Your task to perform on an android device: toggle javascript in the chrome app Image 0: 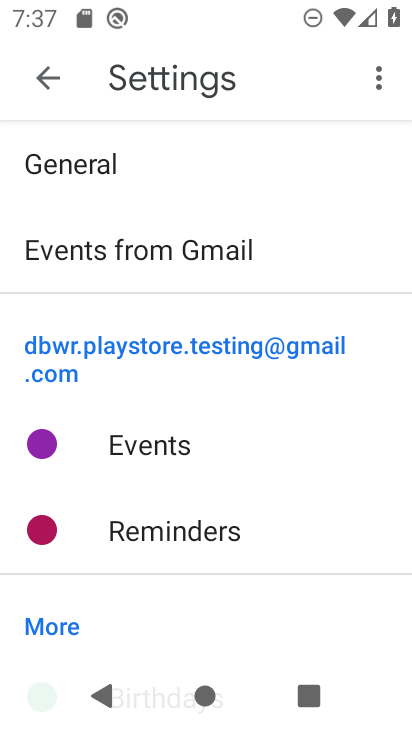
Step 0: press home button
Your task to perform on an android device: toggle javascript in the chrome app Image 1: 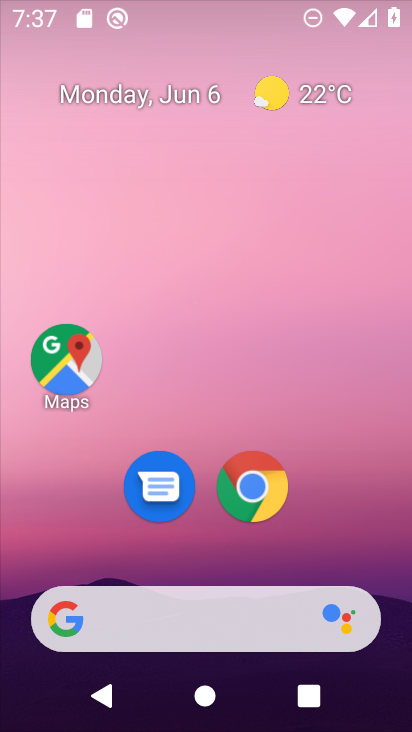
Step 1: drag from (392, 679) to (291, 63)
Your task to perform on an android device: toggle javascript in the chrome app Image 2: 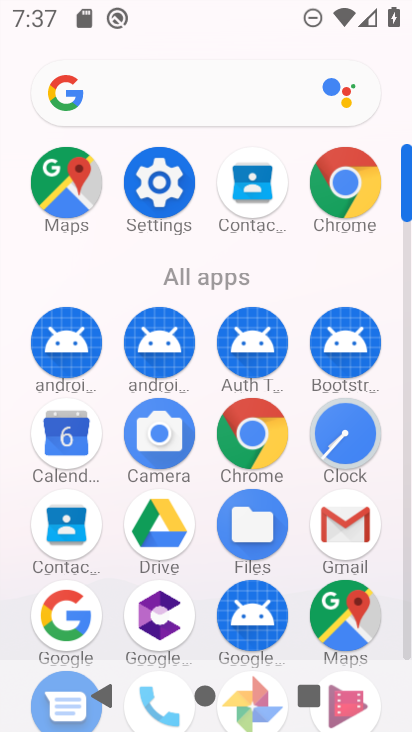
Step 2: click (362, 183)
Your task to perform on an android device: toggle javascript in the chrome app Image 3: 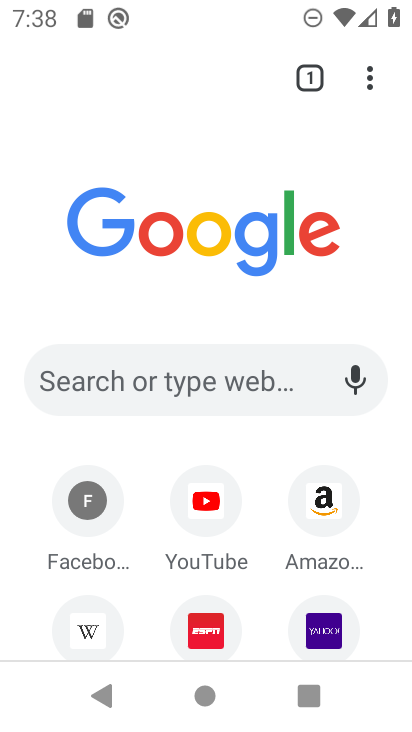
Step 3: click (374, 74)
Your task to perform on an android device: toggle javascript in the chrome app Image 4: 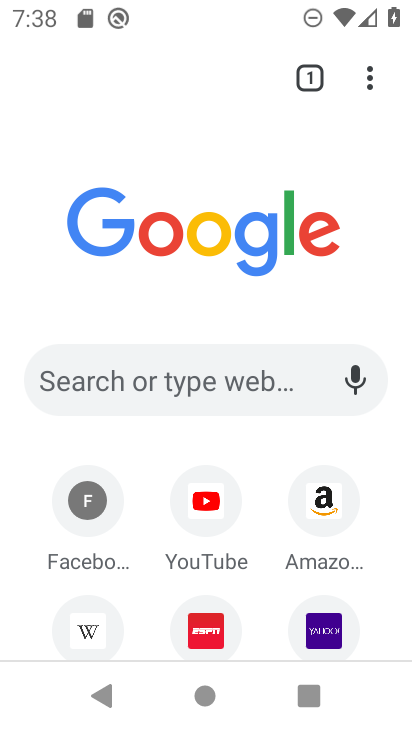
Step 4: click (360, 63)
Your task to perform on an android device: toggle javascript in the chrome app Image 5: 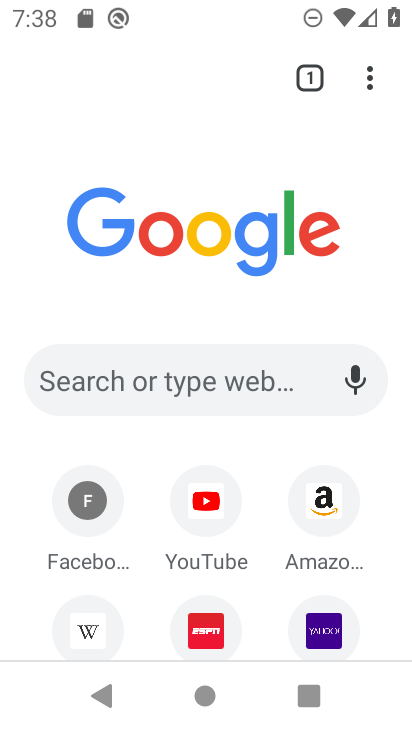
Step 5: click (366, 75)
Your task to perform on an android device: toggle javascript in the chrome app Image 6: 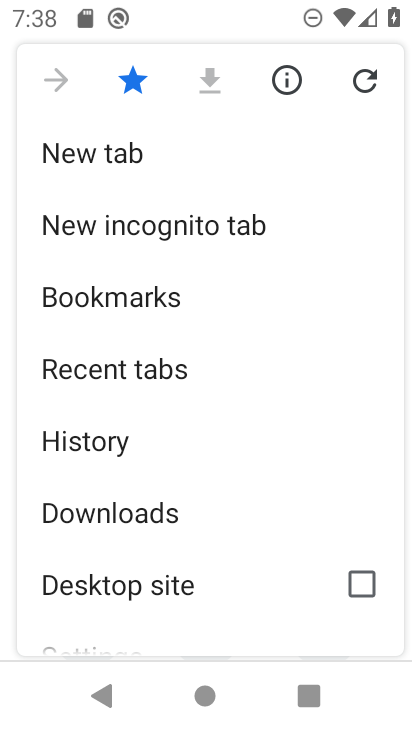
Step 6: drag from (161, 569) to (187, 128)
Your task to perform on an android device: toggle javascript in the chrome app Image 7: 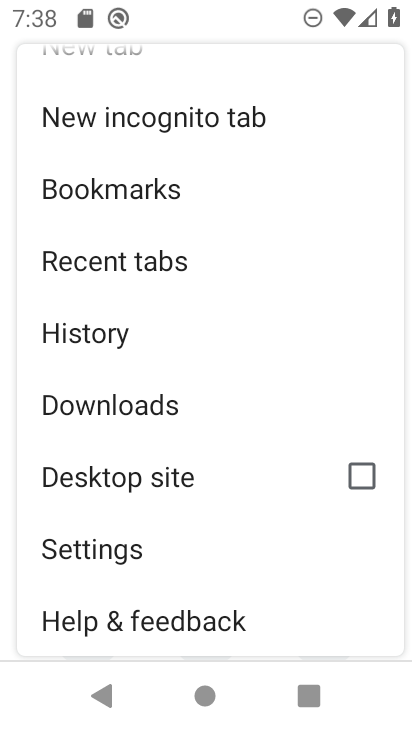
Step 7: click (124, 540)
Your task to perform on an android device: toggle javascript in the chrome app Image 8: 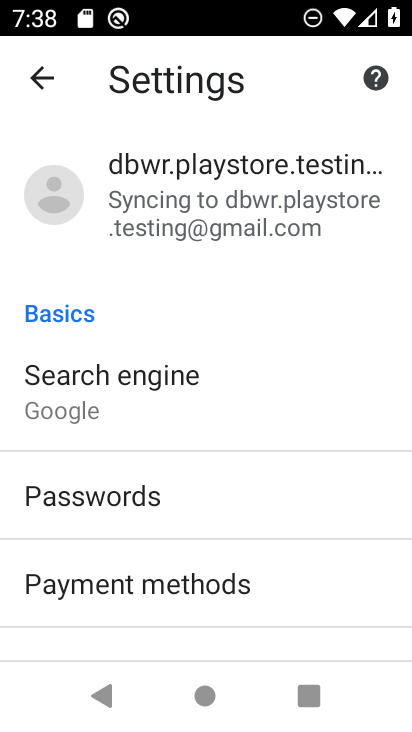
Step 8: drag from (159, 587) to (195, 156)
Your task to perform on an android device: toggle javascript in the chrome app Image 9: 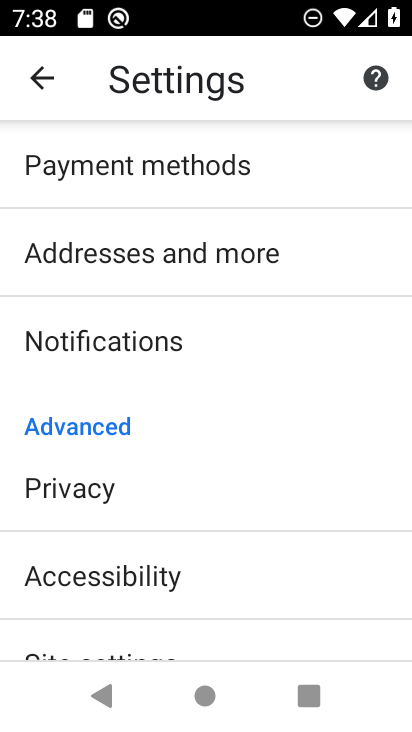
Step 9: drag from (190, 620) to (275, 231)
Your task to perform on an android device: toggle javascript in the chrome app Image 10: 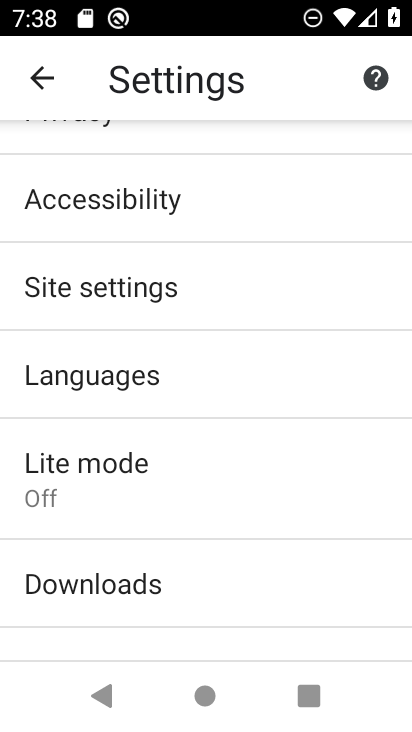
Step 10: click (110, 293)
Your task to perform on an android device: toggle javascript in the chrome app Image 11: 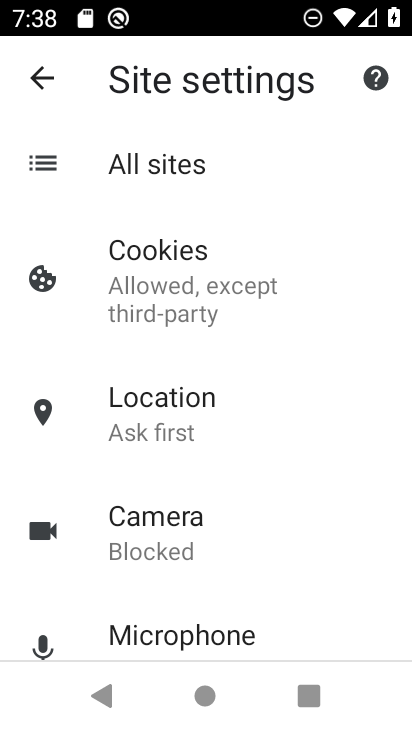
Step 11: drag from (213, 527) to (221, 164)
Your task to perform on an android device: toggle javascript in the chrome app Image 12: 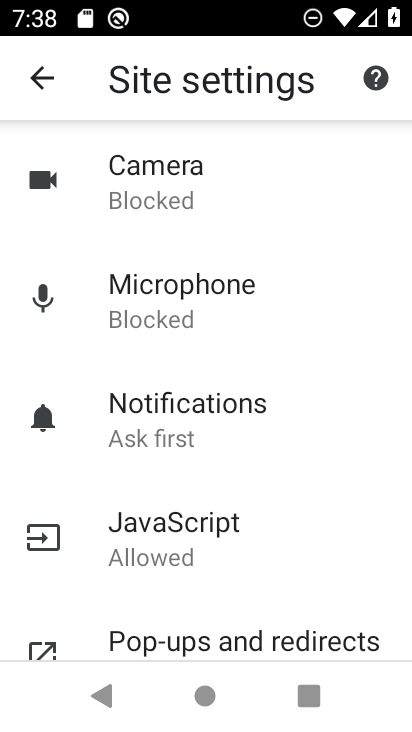
Step 12: click (231, 530)
Your task to perform on an android device: toggle javascript in the chrome app Image 13: 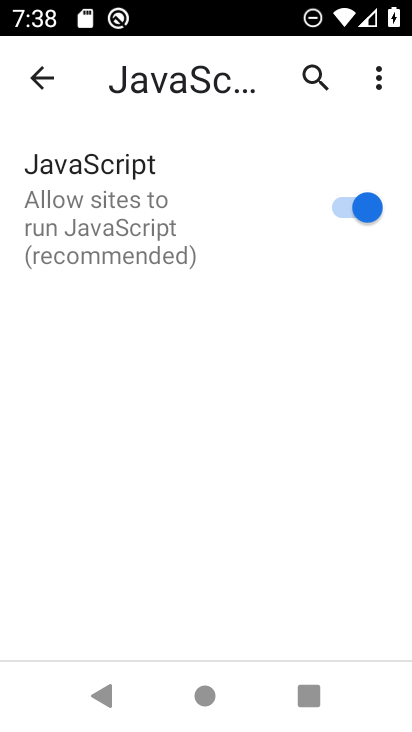
Step 13: click (316, 201)
Your task to perform on an android device: toggle javascript in the chrome app Image 14: 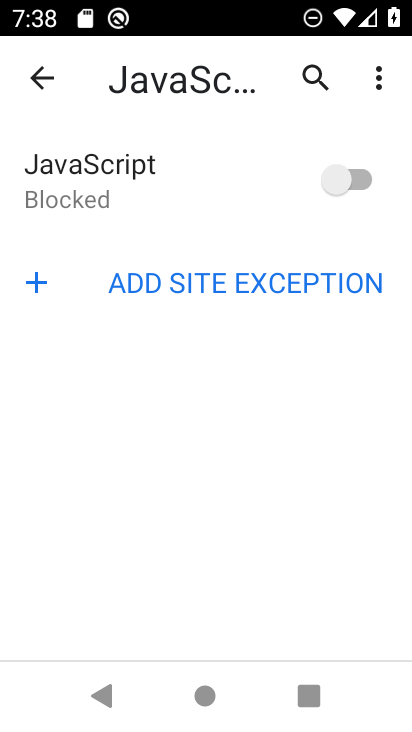
Step 14: task complete